Your task to perform on an android device: Search for vegetarian restaurants on Maps Image 0: 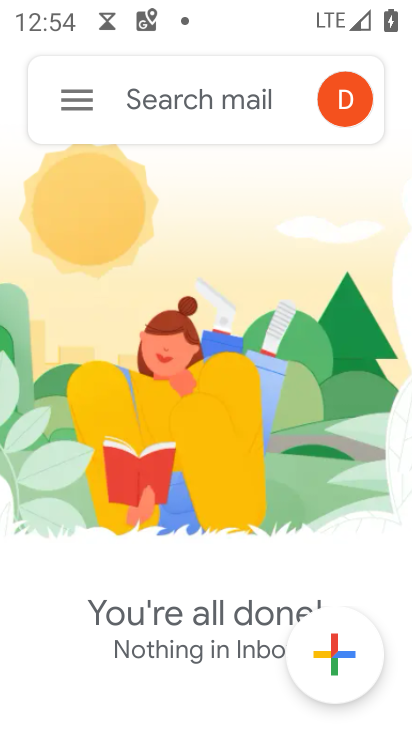
Step 0: press home button
Your task to perform on an android device: Search for vegetarian restaurants on Maps Image 1: 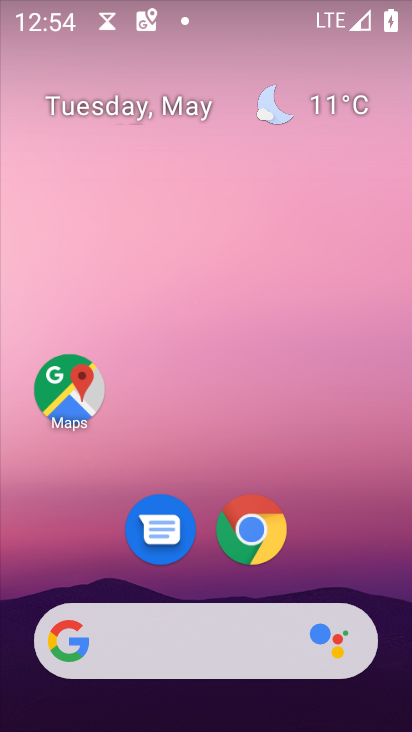
Step 1: drag from (229, 721) to (213, 73)
Your task to perform on an android device: Search for vegetarian restaurants on Maps Image 2: 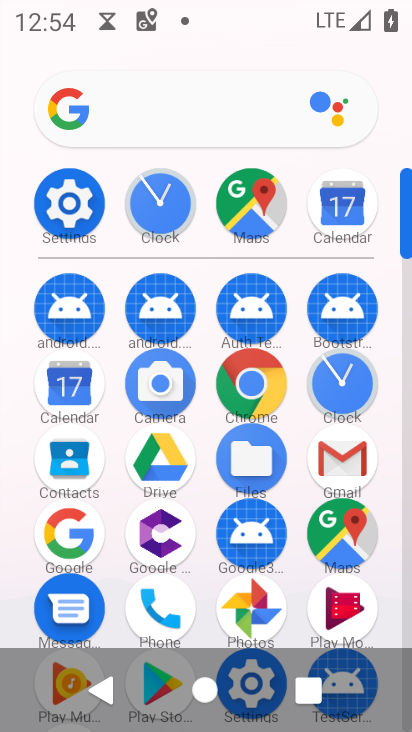
Step 2: click (337, 534)
Your task to perform on an android device: Search for vegetarian restaurants on Maps Image 3: 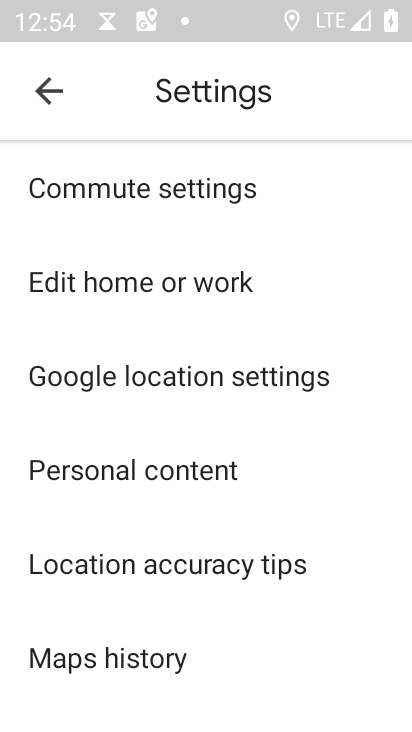
Step 3: click (55, 89)
Your task to perform on an android device: Search for vegetarian restaurants on Maps Image 4: 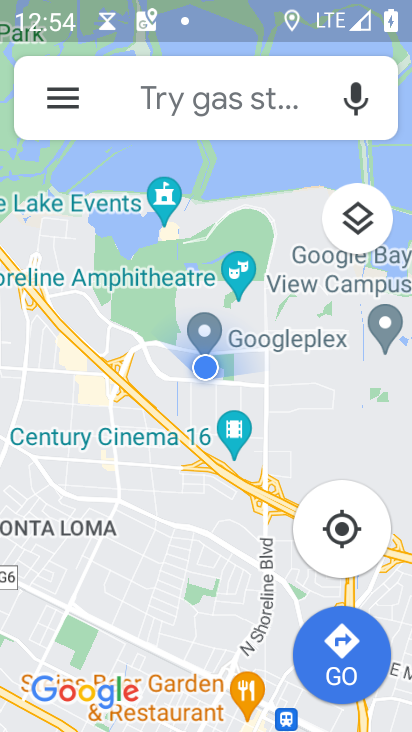
Step 4: click (194, 111)
Your task to perform on an android device: Search for vegetarian restaurants on Maps Image 5: 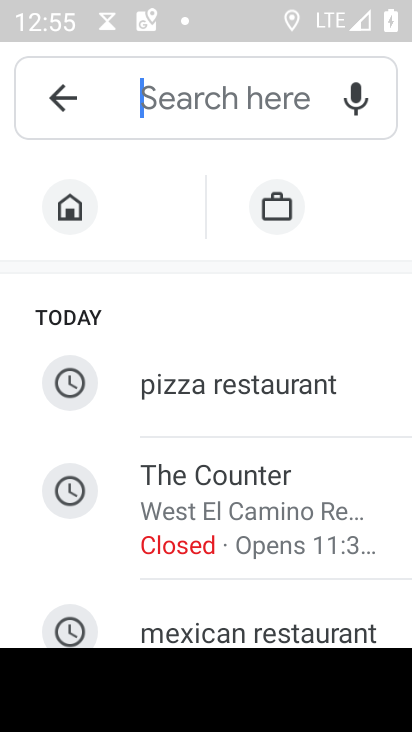
Step 5: type "vegetarian restaurants"
Your task to perform on an android device: Search for vegetarian restaurants on Maps Image 6: 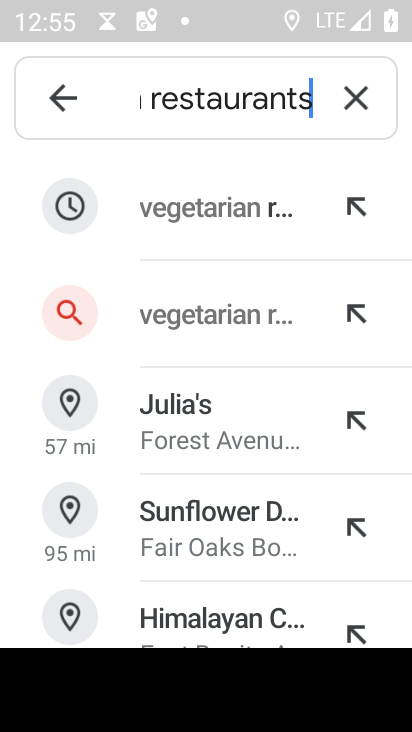
Step 6: click (221, 200)
Your task to perform on an android device: Search for vegetarian restaurants on Maps Image 7: 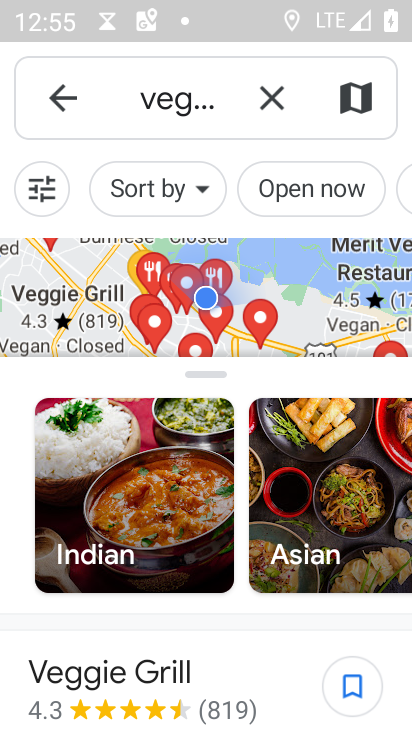
Step 7: task complete